Your task to perform on an android device: Open a new window in Chrome Image 0: 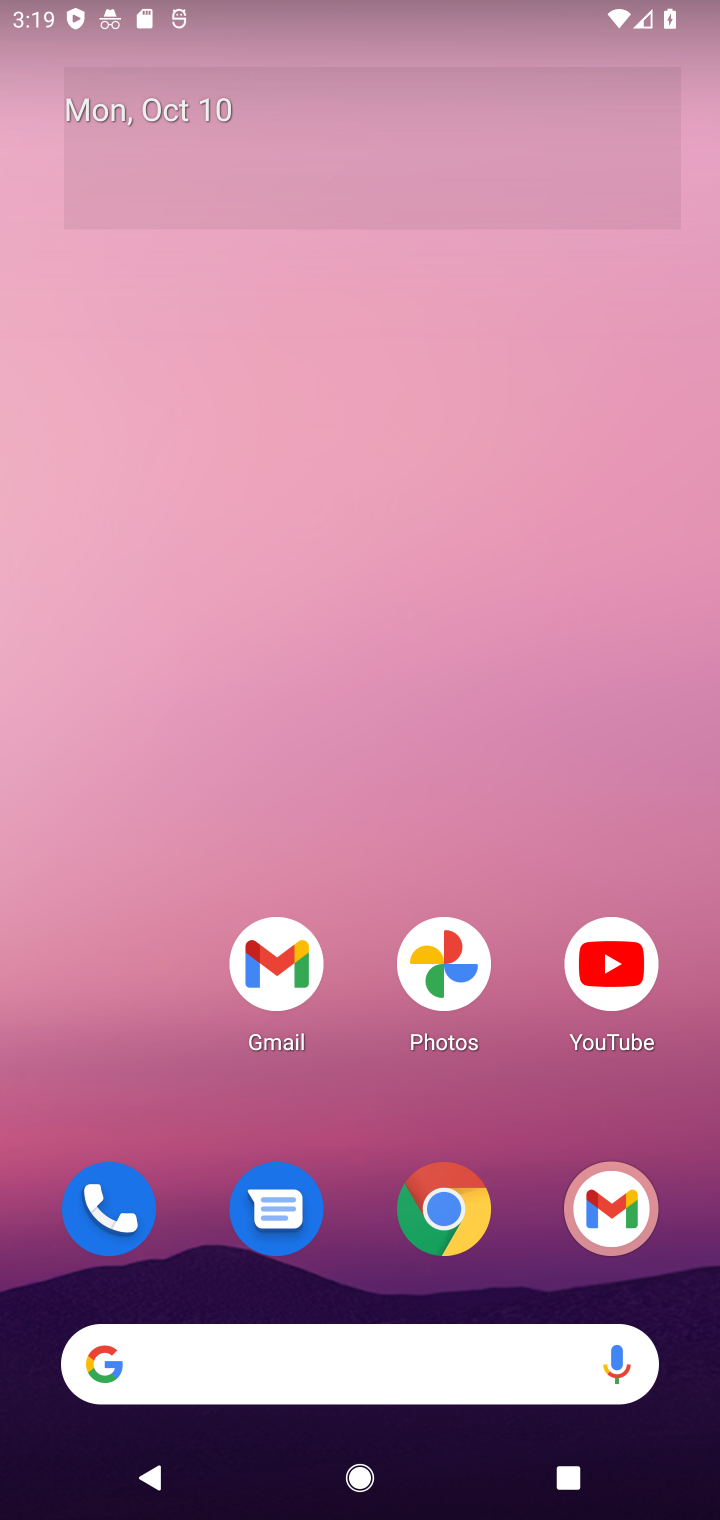
Step 0: click (465, 1222)
Your task to perform on an android device: Open a new window in Chrome Image 1: 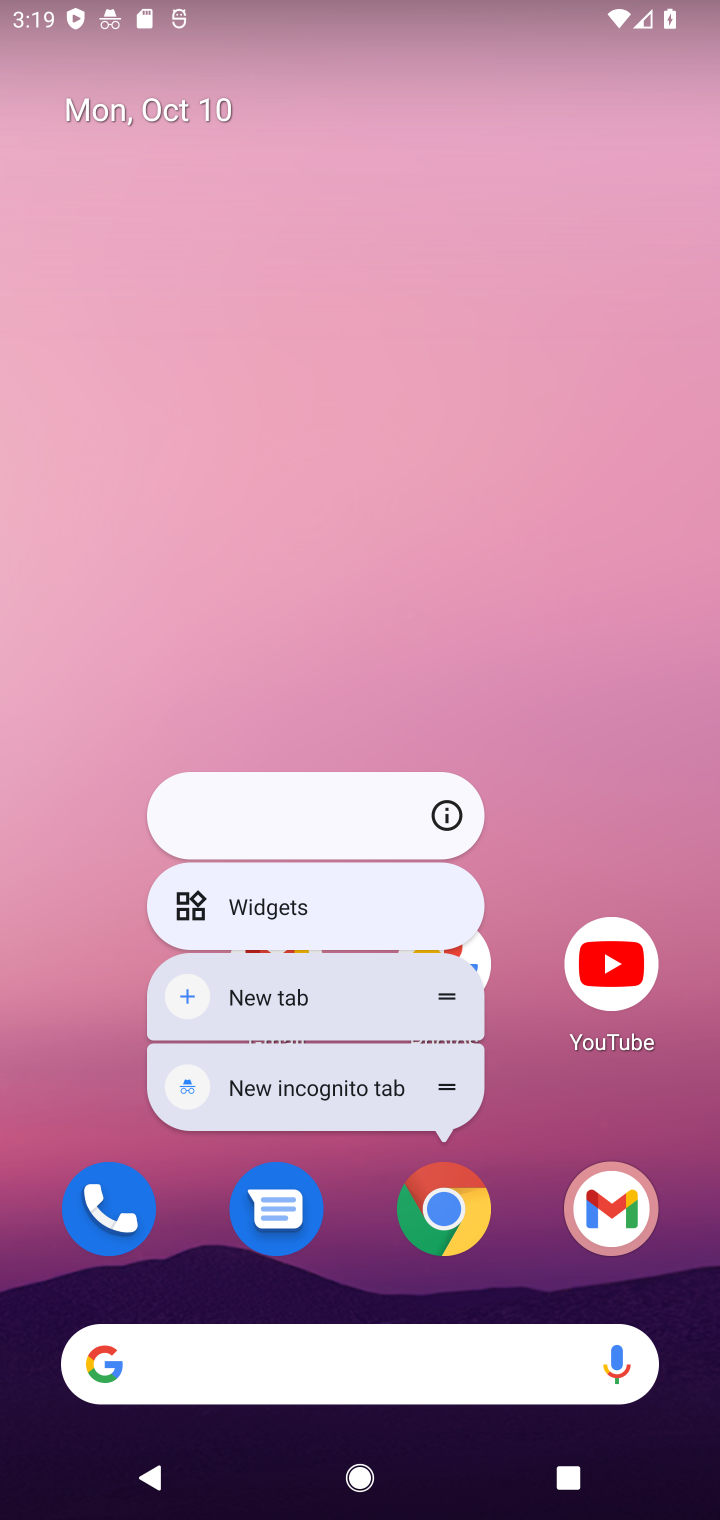
Step 1: click (465, 1222)
Your task to perform on an android device: Open a new window in Chrome Image 2: 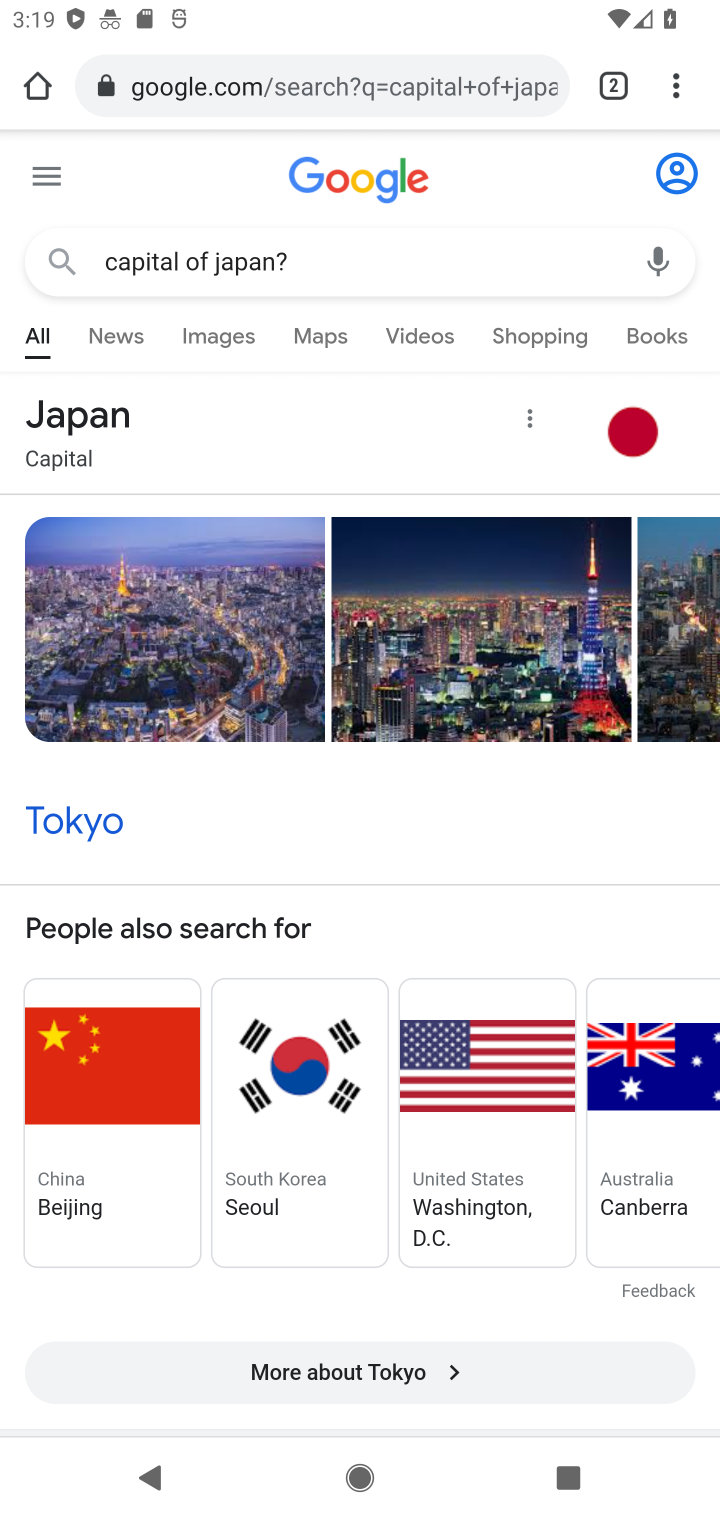
Step 2: click (613, 80)
Your task to perform on an android device: Open a new window in Chrome Image 3: 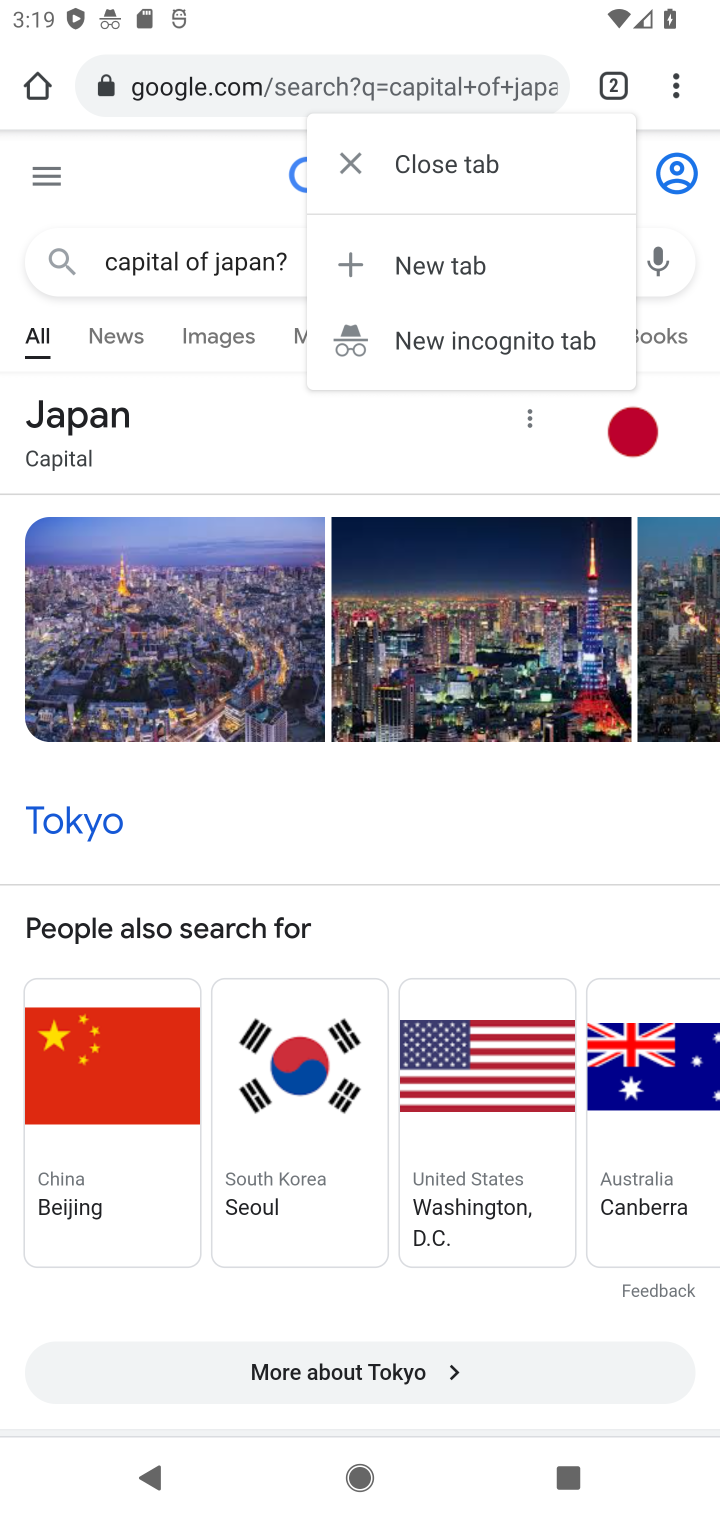
Step 3: click (428, 247)
Your task to perform on an android device: Open a new window in Chrome Image 4: 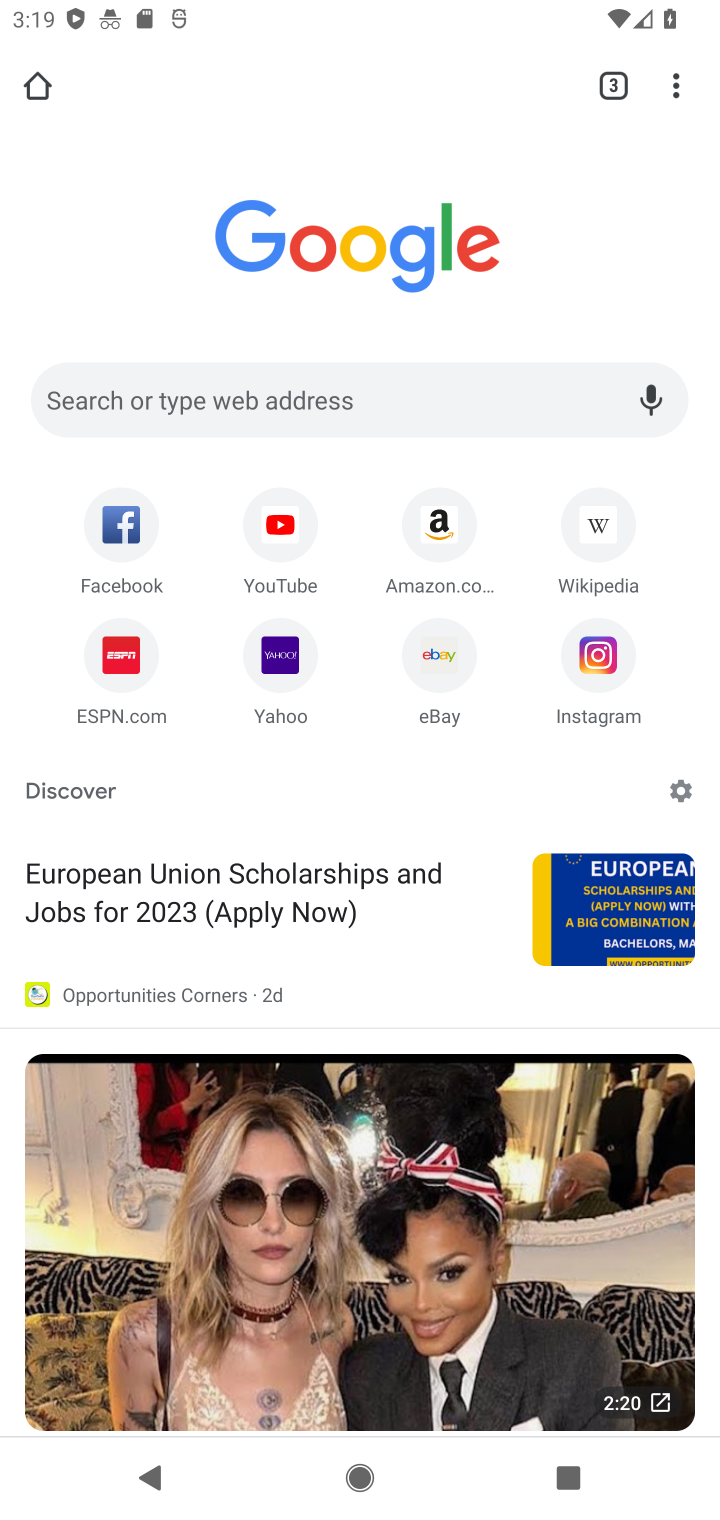
Step 4: task complete